Your task to perform on an android device: empty trash in the gmail app Image 0: 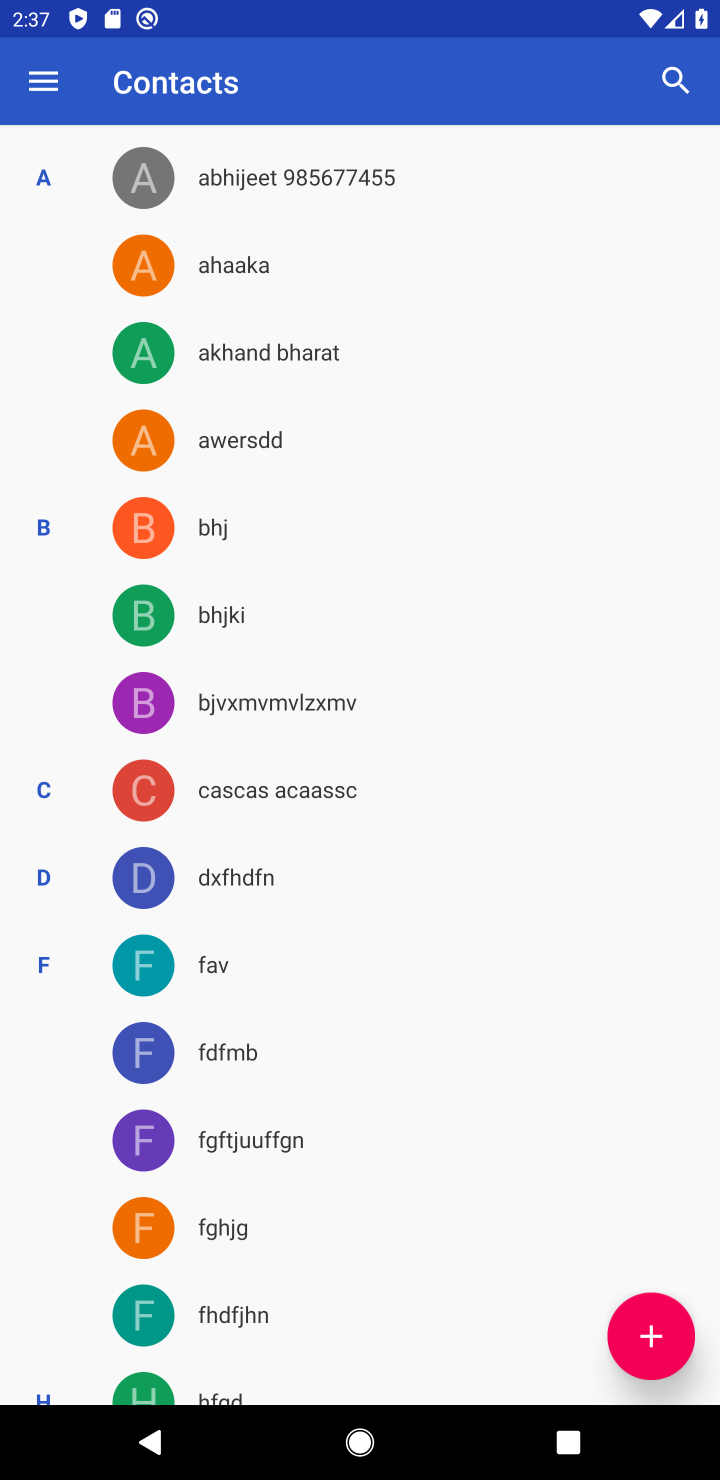
Step 0: press home button
Your task to perform on an android device: empty trash in the gmail app Image 1: 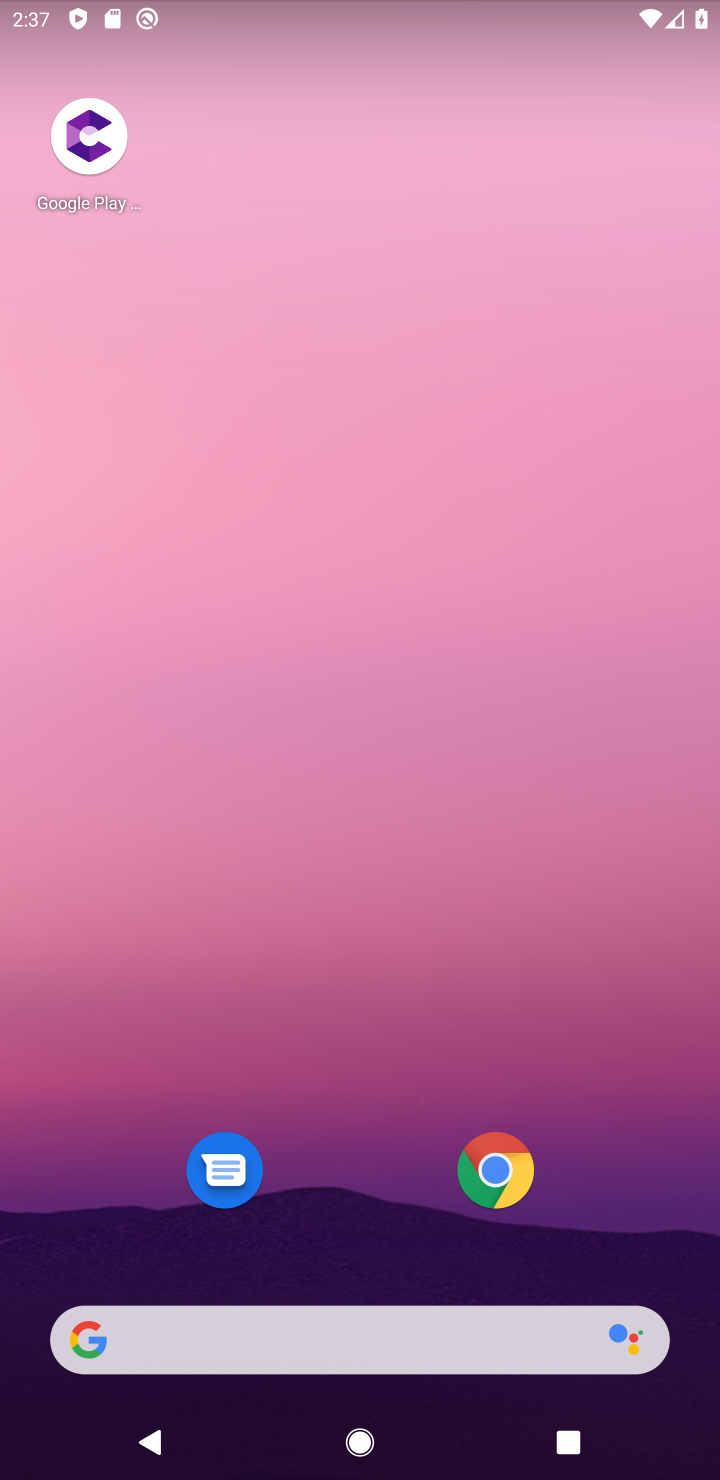
Step 1: drag from (412, 852) to (441, 331)
Your task to perform on an android device: empty trash in the gmail app Image 2: 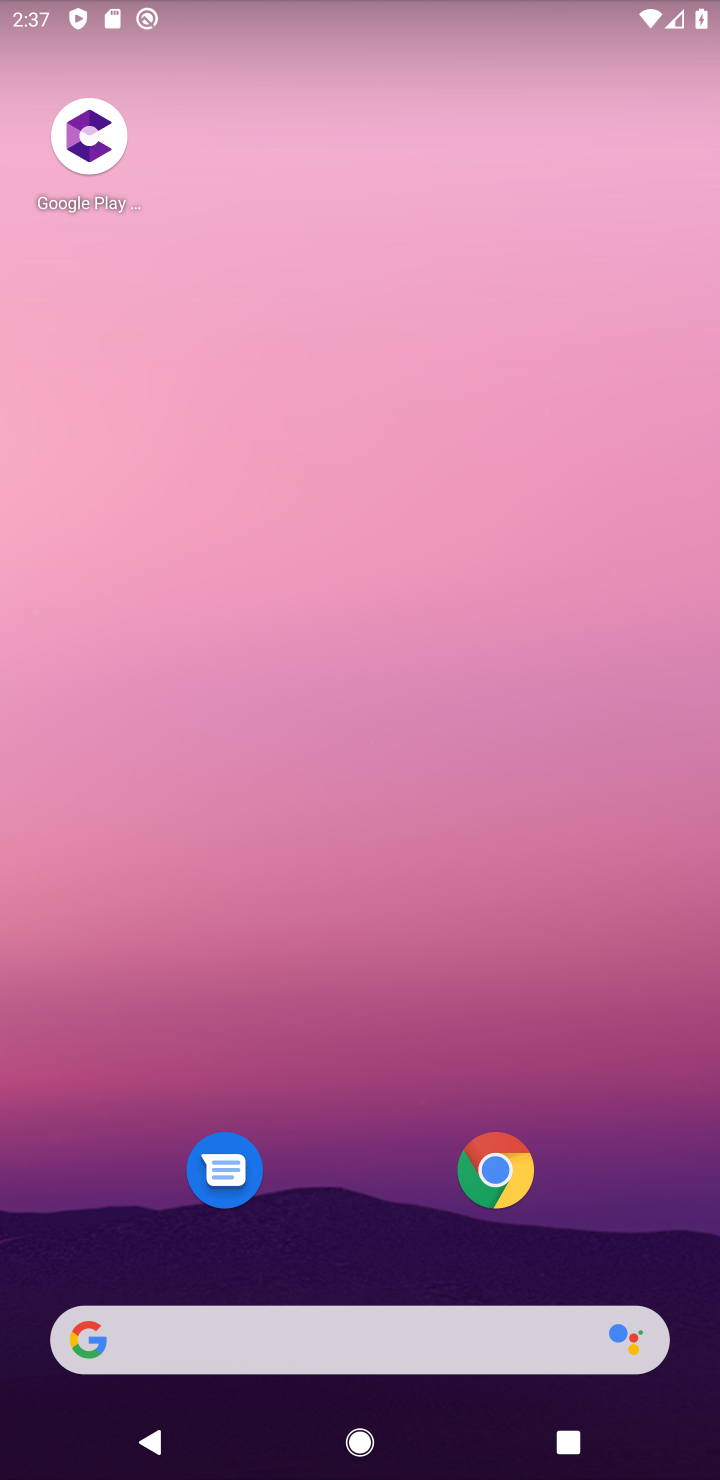
Step 2: drag from (358, 556) to (333, 199)
Your task to perform on an android device: empty trash in the gmail app Image 3: 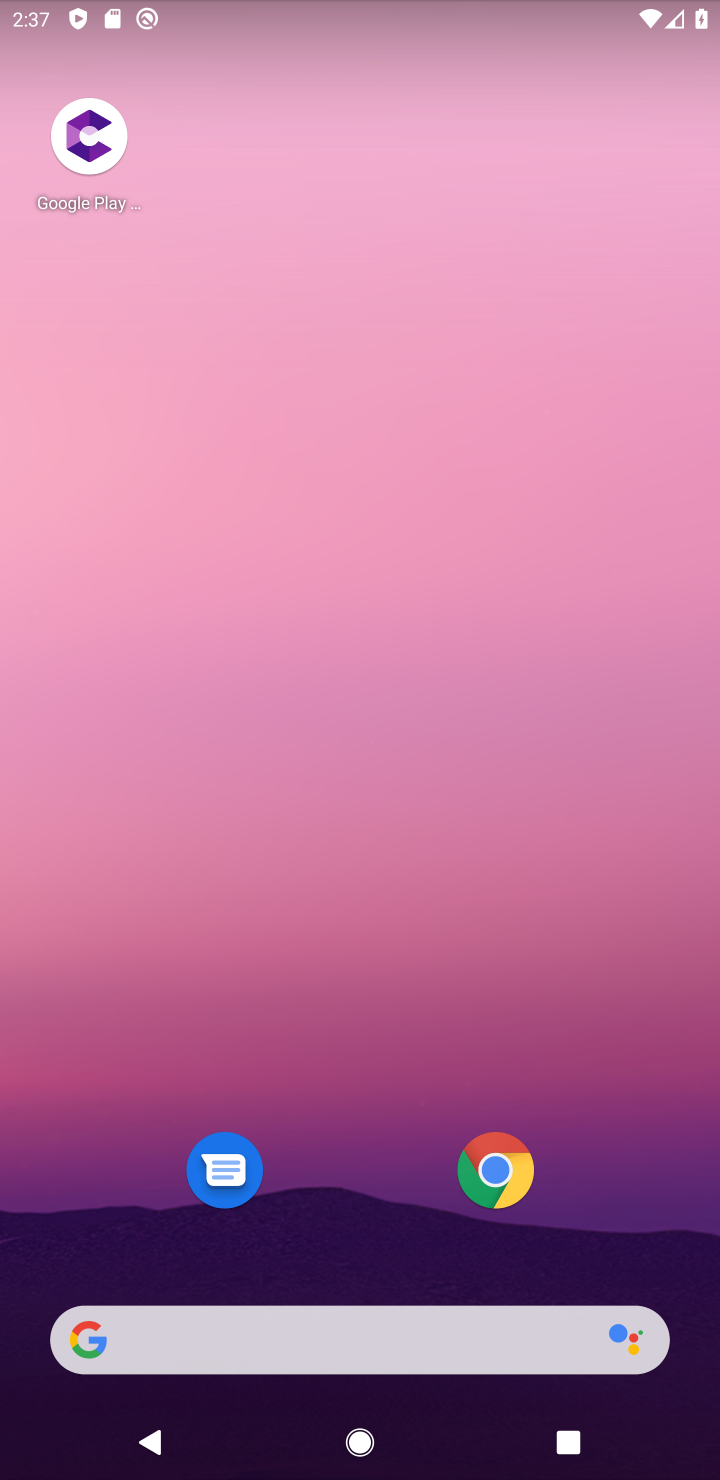
Step 3: drag from (292, 741) to (219, 6)
Your task to perform on an android device: empty trash in the gmail app Image 4: 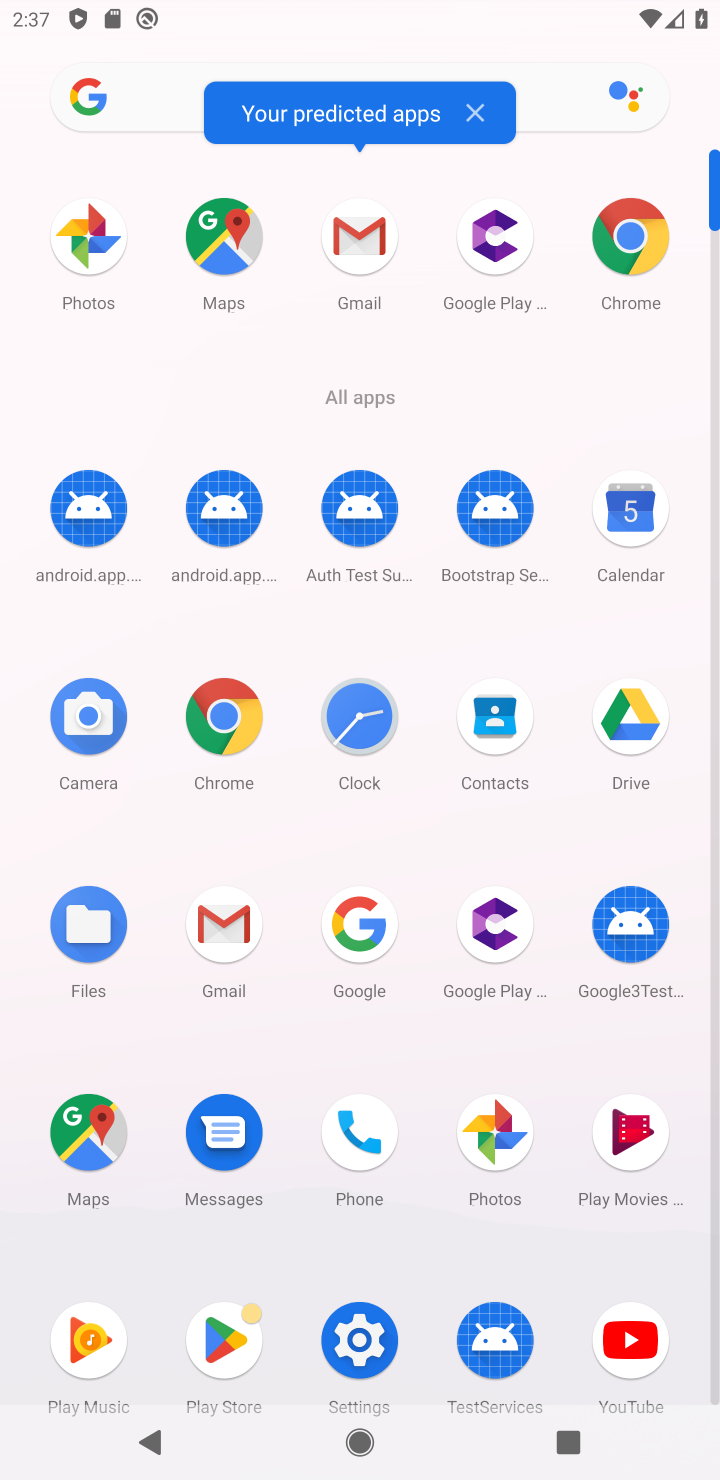
Step 4: click (365, 253)
Your task to perform on an android device: empty trash in the gmail app Image 5: 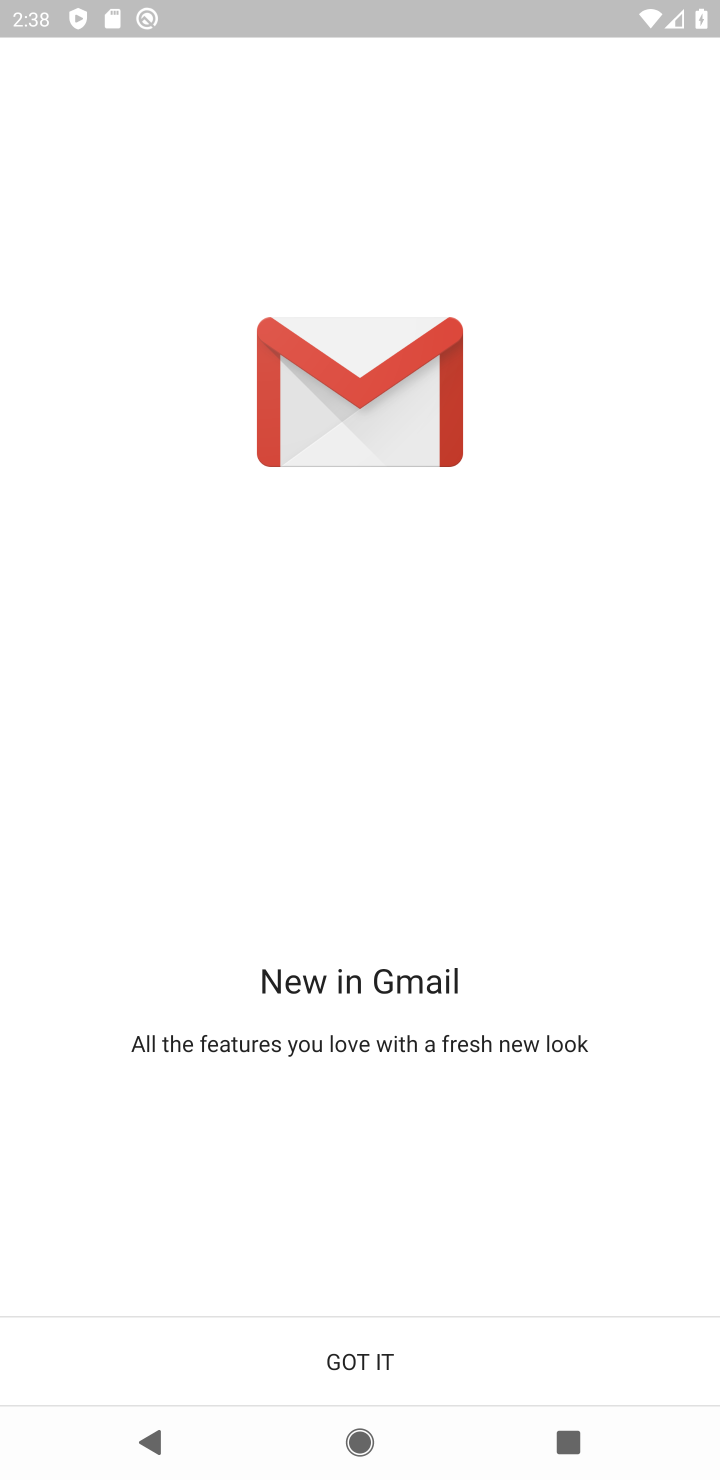
Step 5: click (369, 1356)
Your task to perform on an android device: empty trash in the gmail app Image 6: 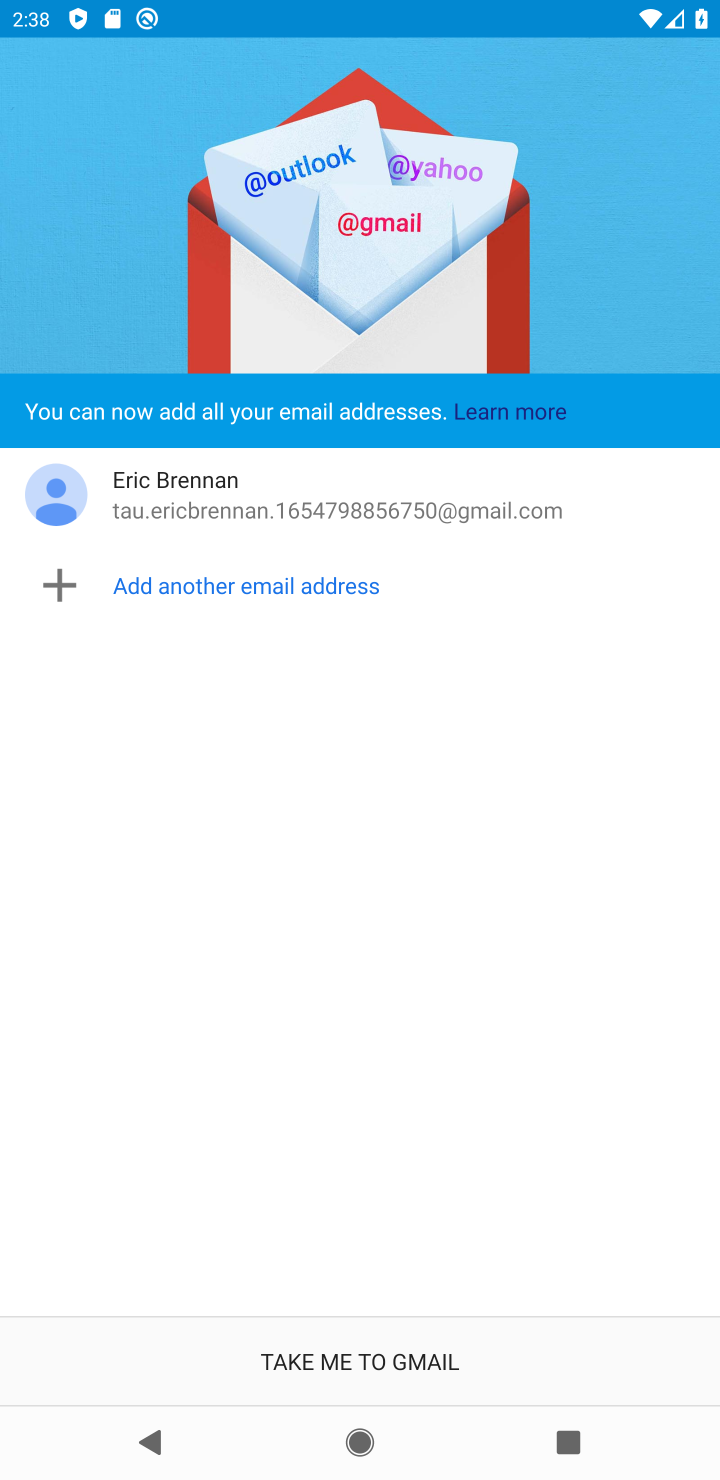
Step 6: click (367, 1355)
Your task to perform on an android device: empty trash in the gmail app Image 7: 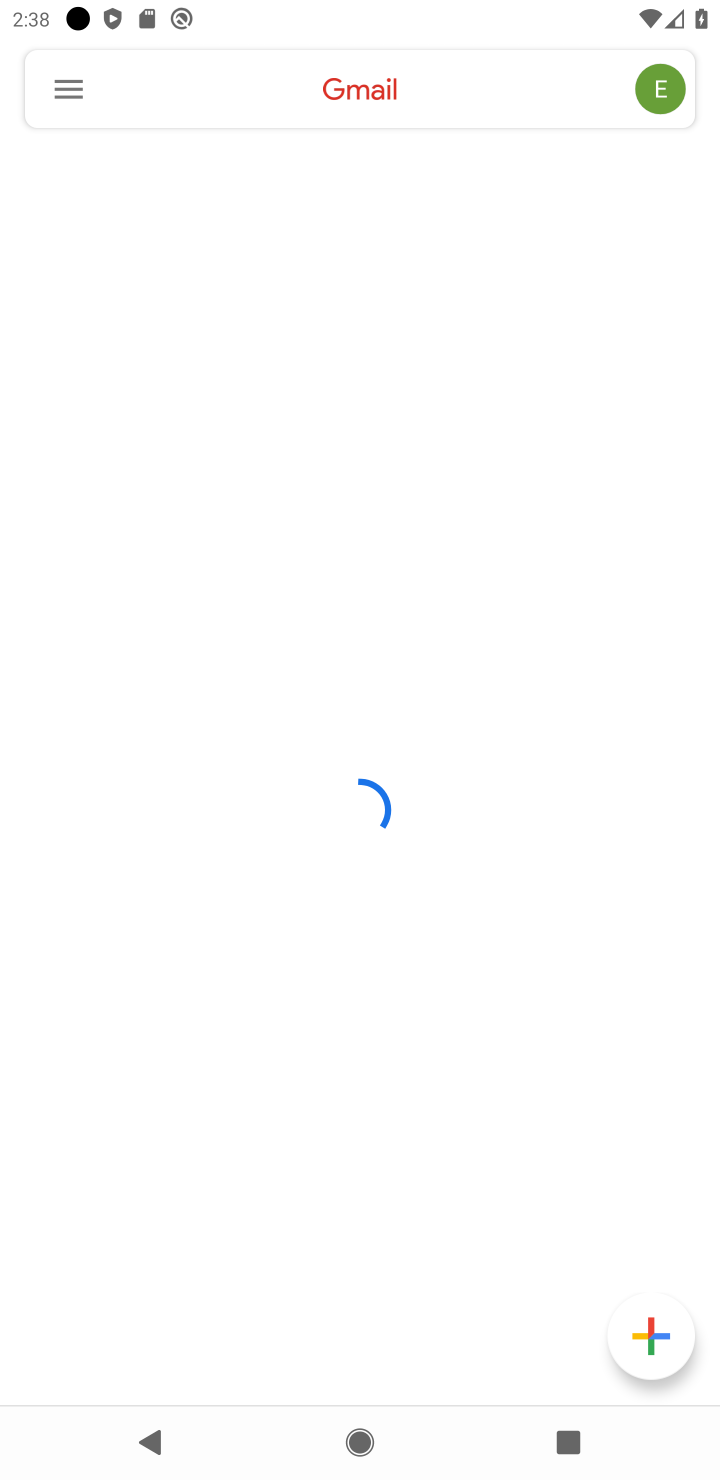
Step 7: task complete